Your task to perform on an android device: Open the web browser Image 0: 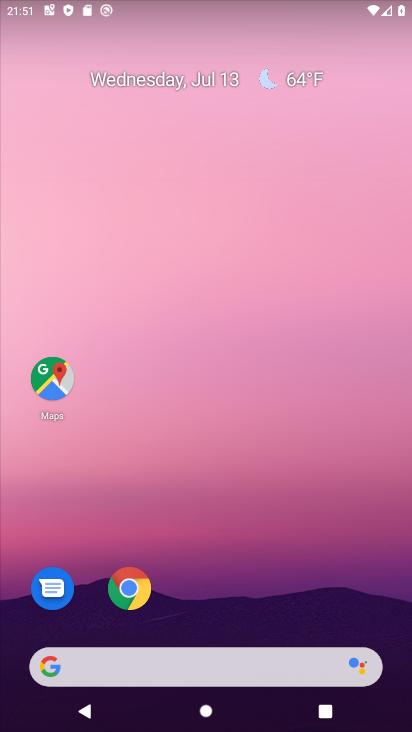
Step 0: click (137, 586)
Your task to perform on an android device: Open the web browser Image 1: 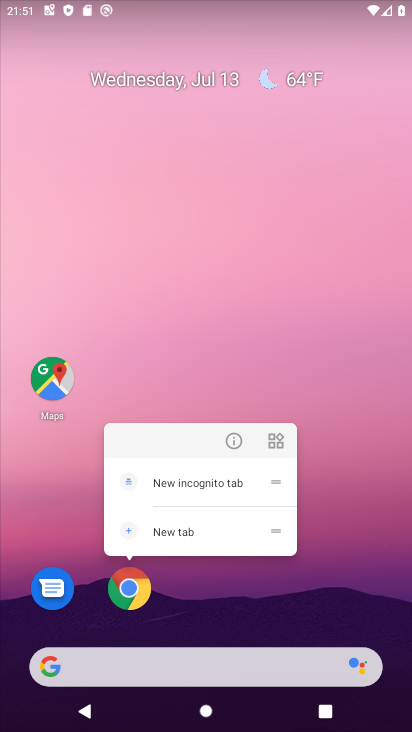
Step 1: click (142, 589)
Your task to perform on an android device: Open the web browser Image 2: 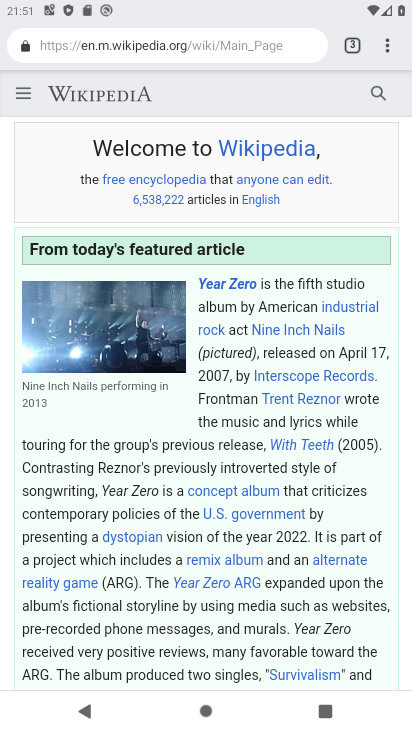
Step 2: task complete